Your task to perform on an android device: turn notification dots on Image 0: 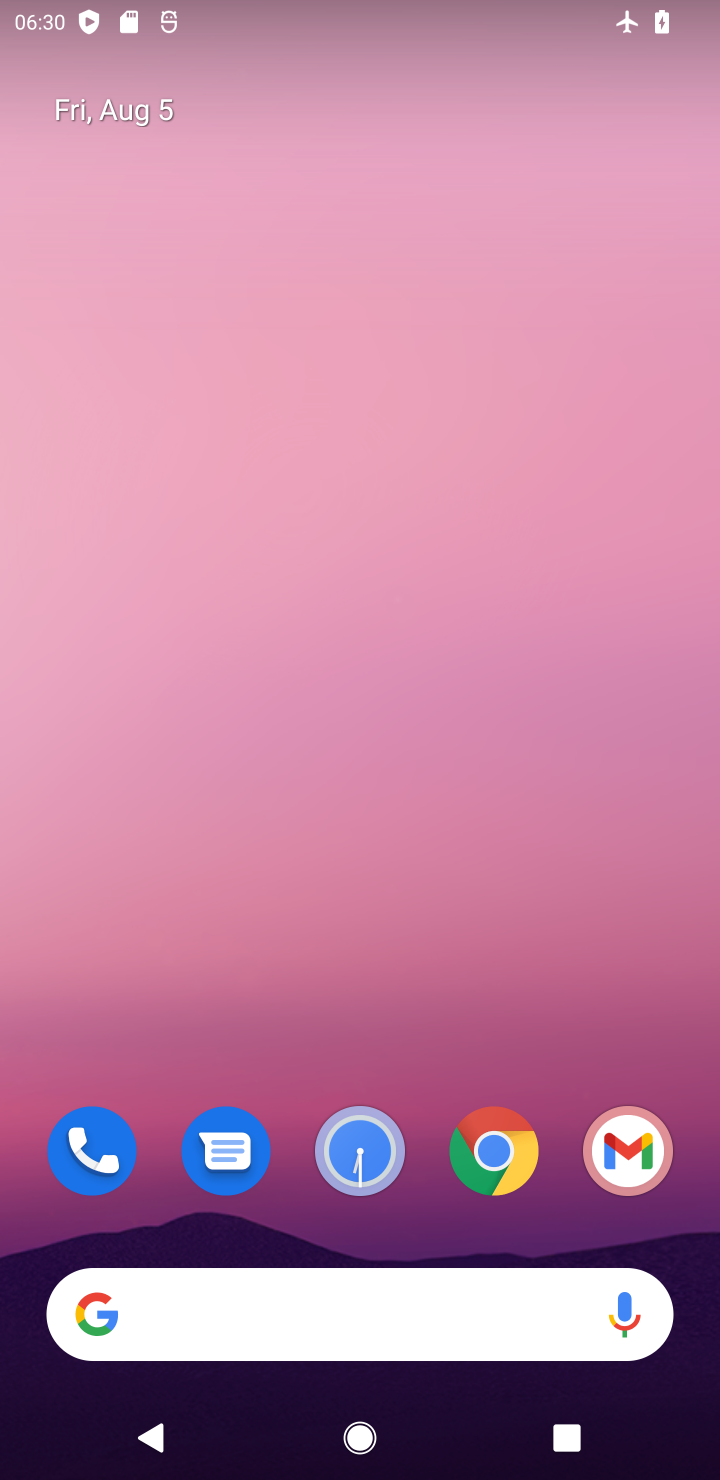
Step 0: drag from (390, 1251) to (120, 576)
Your task to perform on an android device: turn notification dots on Image 1: 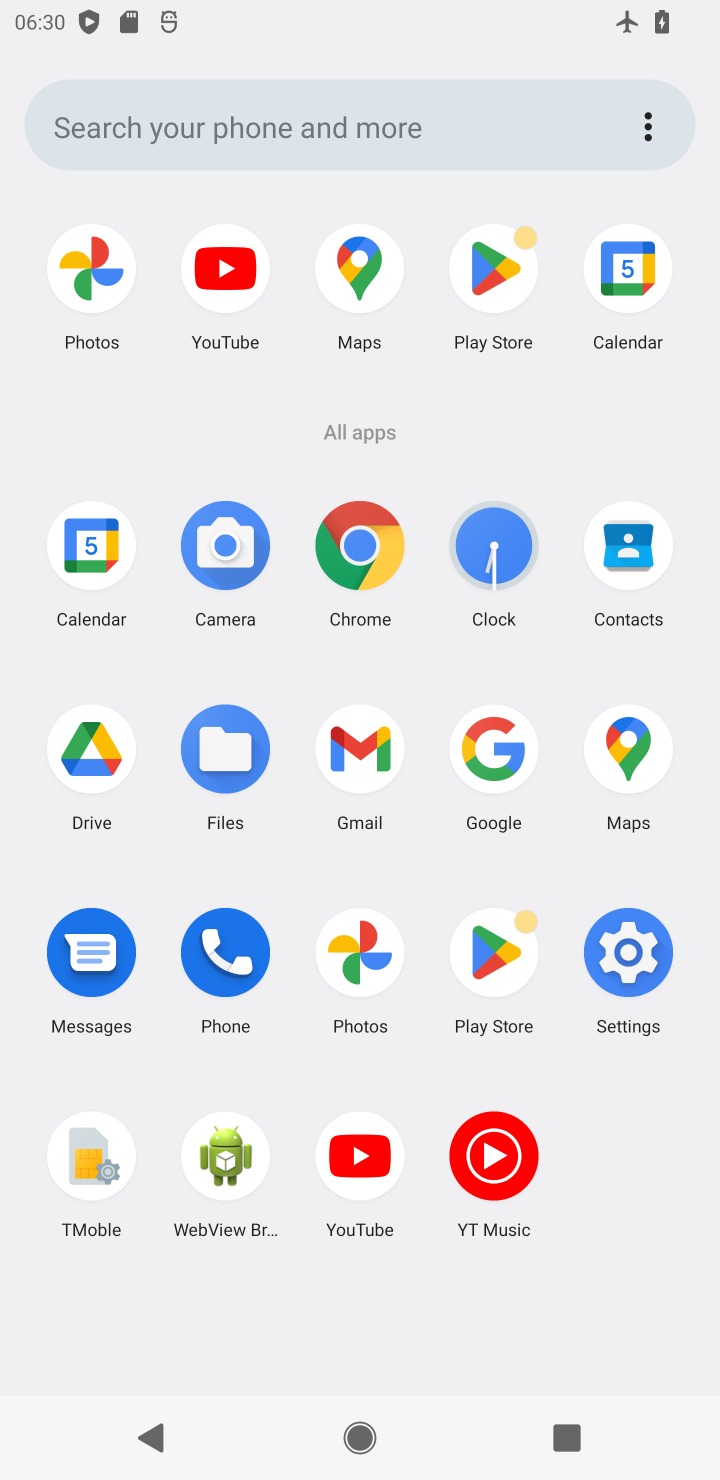
Step 1: click (610, 944)
Your task to perform on an android device: turn notification dots on Image 2: 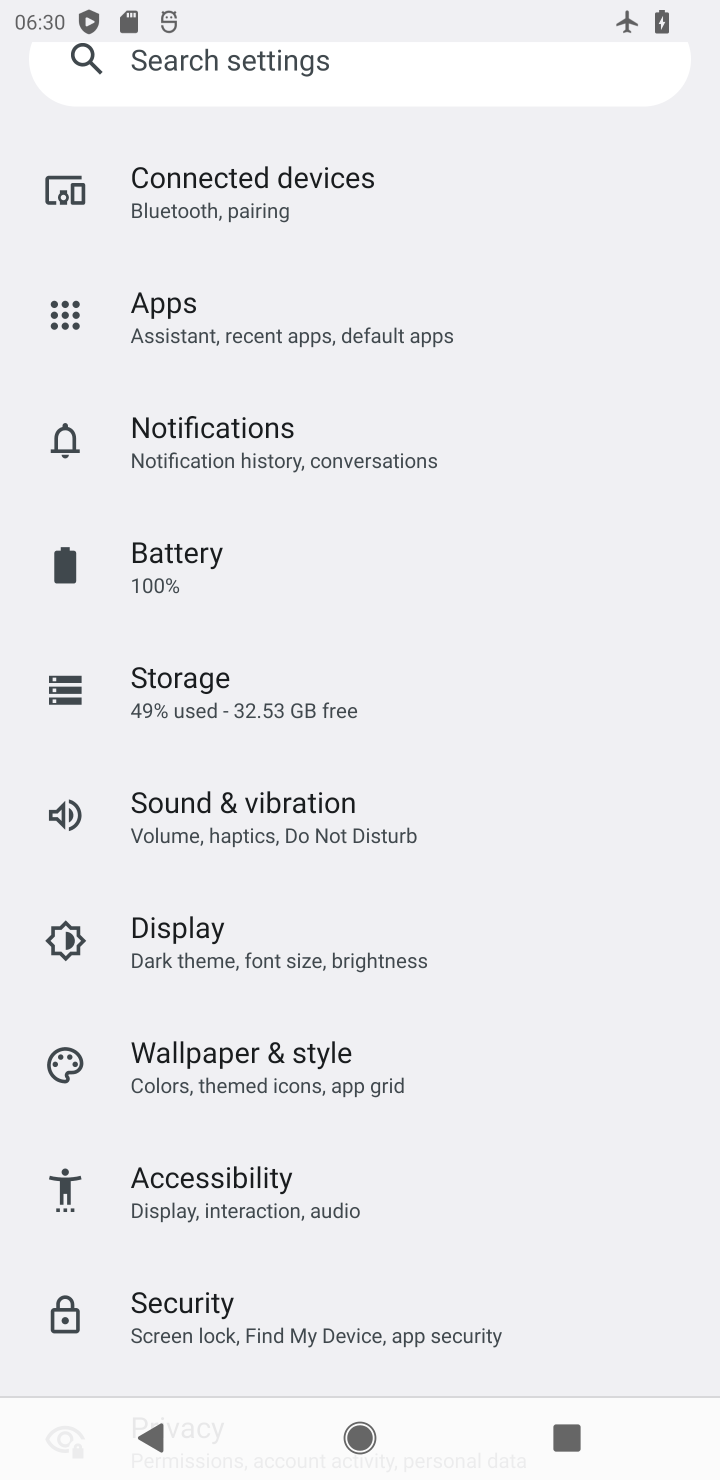
Step 2: click (324, 456)
Your task to perform on an android device: turn notification dots on Image 3: 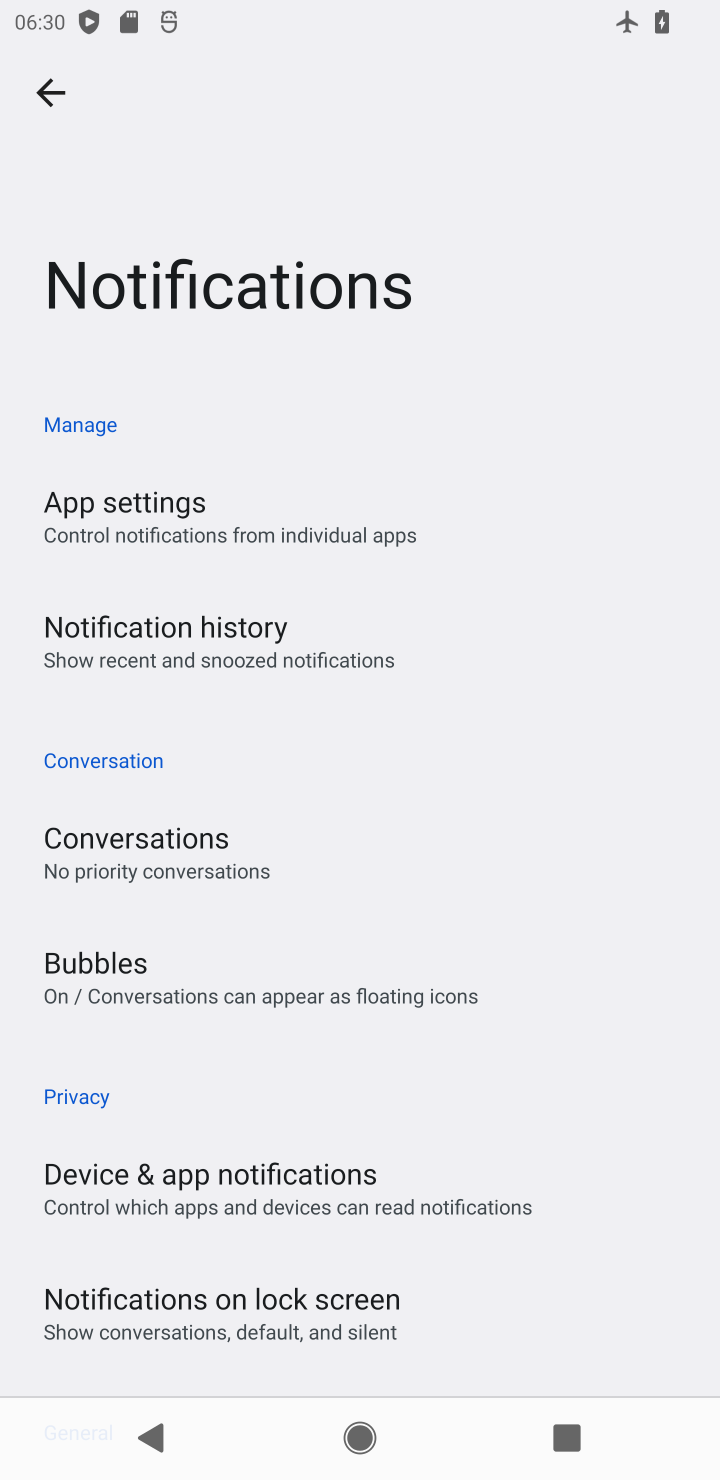
Step 3: task complete